Your task to perform on an android device: Go to wifi settings Image 0: 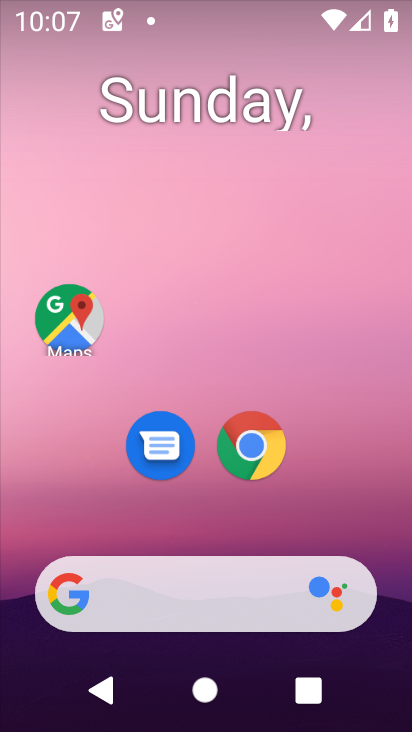
Step 0: press home button
Your task to perform on an android device: Go to wifi settings Image 1: 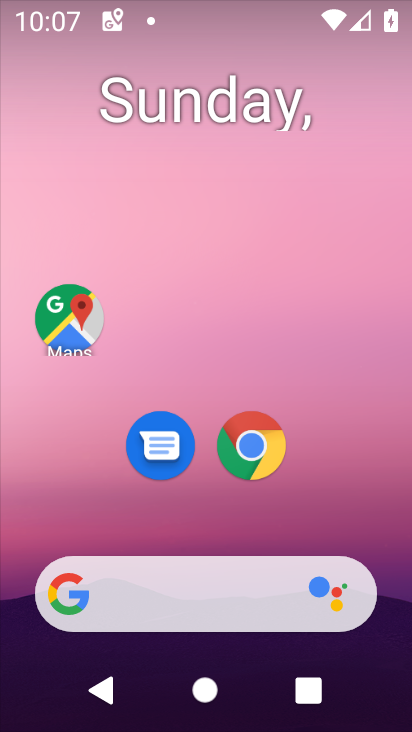
Step 1: drag from (121, 0) to (225, 680)
Your task to perform on an android device: Go to wifi settings Image 2: 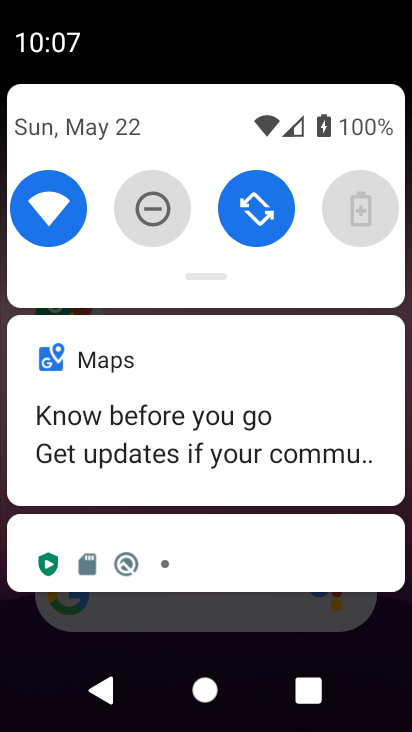
Step 2: drag from (207, 258) to (232, 679)
Your task to perform on an android device: Go to wifi settings Image 3: 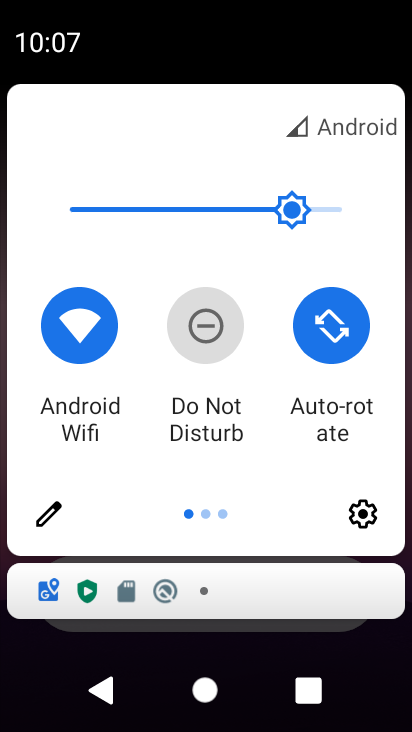
Step 3: click (386, 297)
Your task to perform on an android device: Go to wifi settings Image 4: 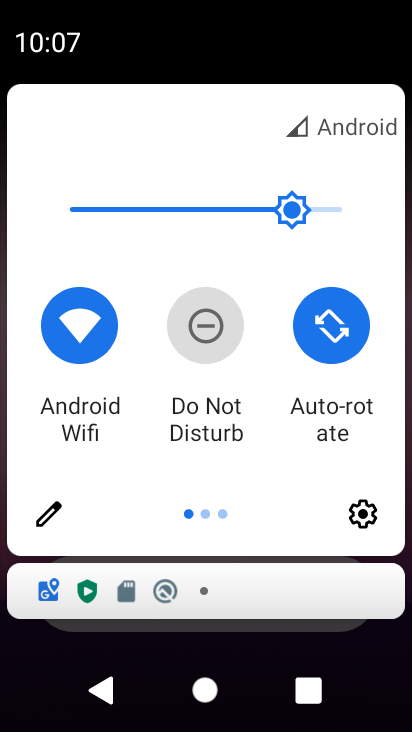
Step 4: click (84, 345)
Your task to perform on an android device: Go to wifi settings Image 5: 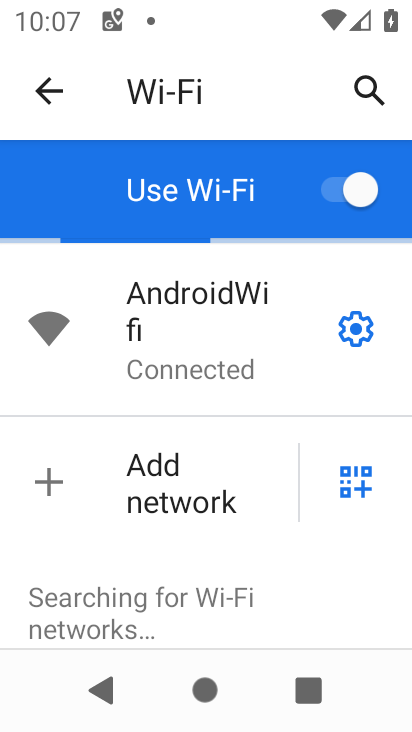
Step 5: task complete